Your task to perform on an android device: clear history in the chrome app Image 0: 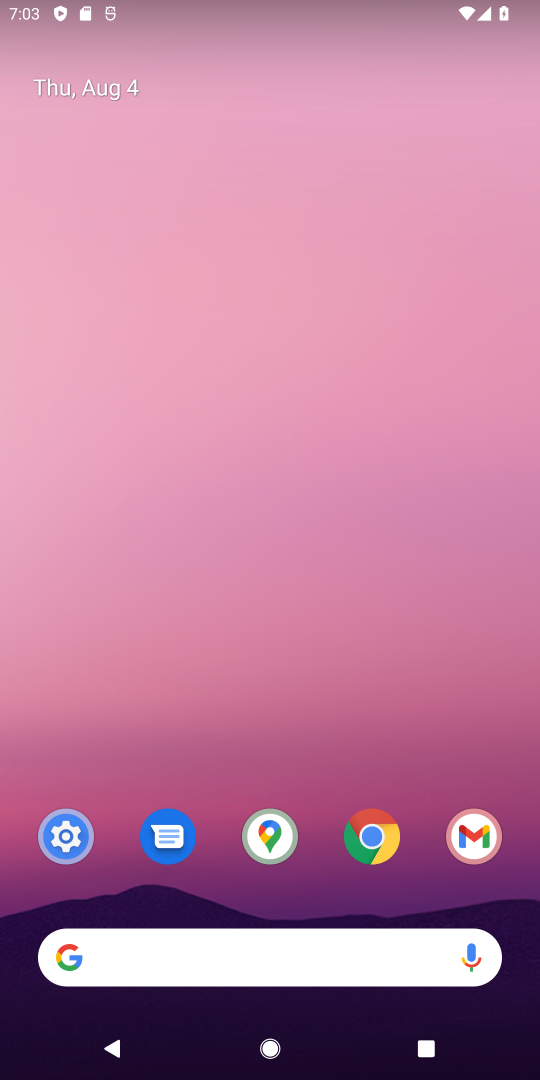
Step 0: click (355, 840)
Your task to perform on an android device: clear history in the chrome app Image 1: 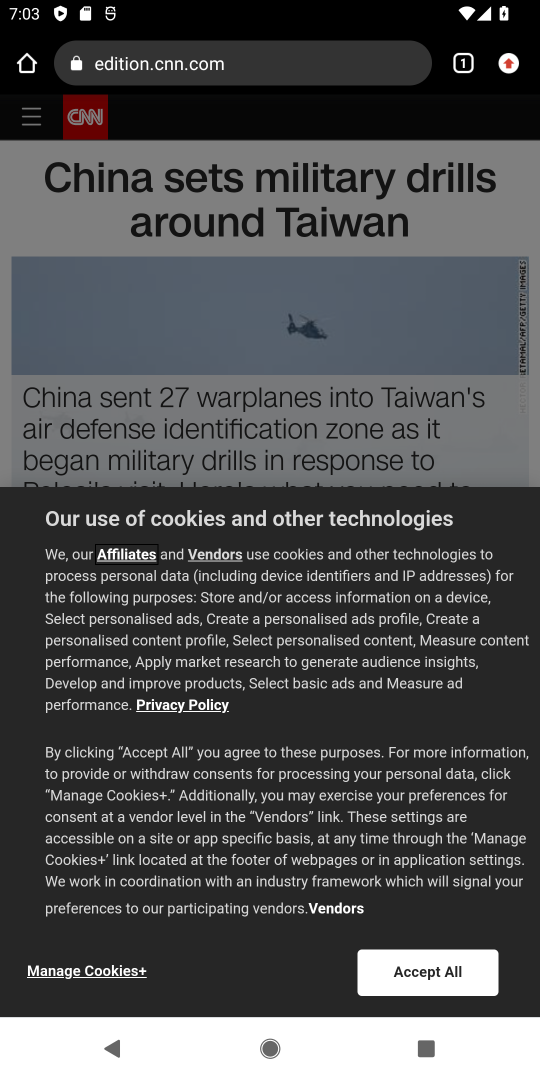
Step 1: drag from (512, 65) to (340, 304)
Your task to perform on an android device: clear history in the chrome app Image 2: 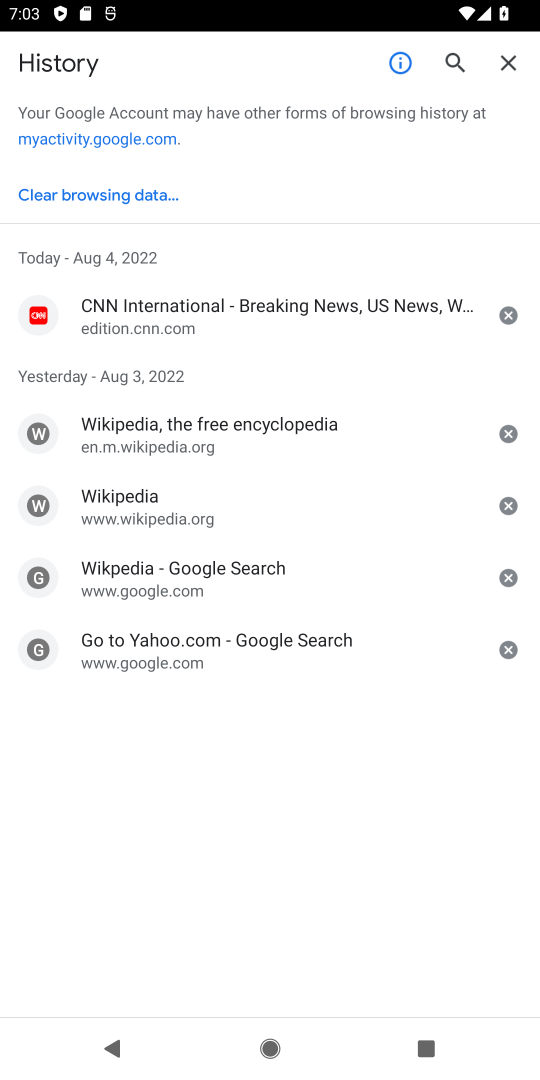
Step 2: click (113, 196)
Your task to perform on an android device: clear history in the chrome app Image 3: 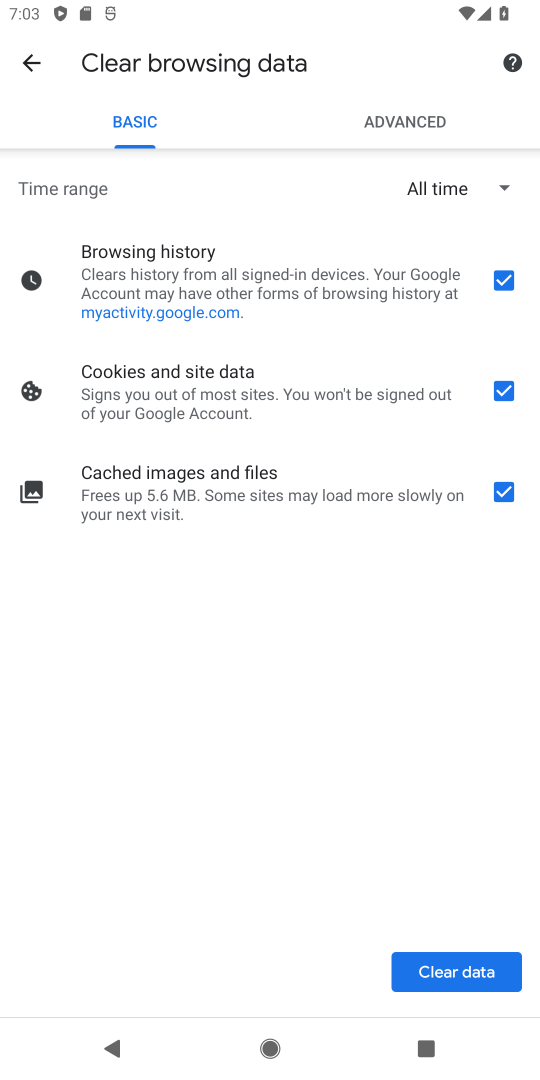
Step 3: click (494, 956)
Your task to perform on an android device: clear history in the chrome app Image 4: 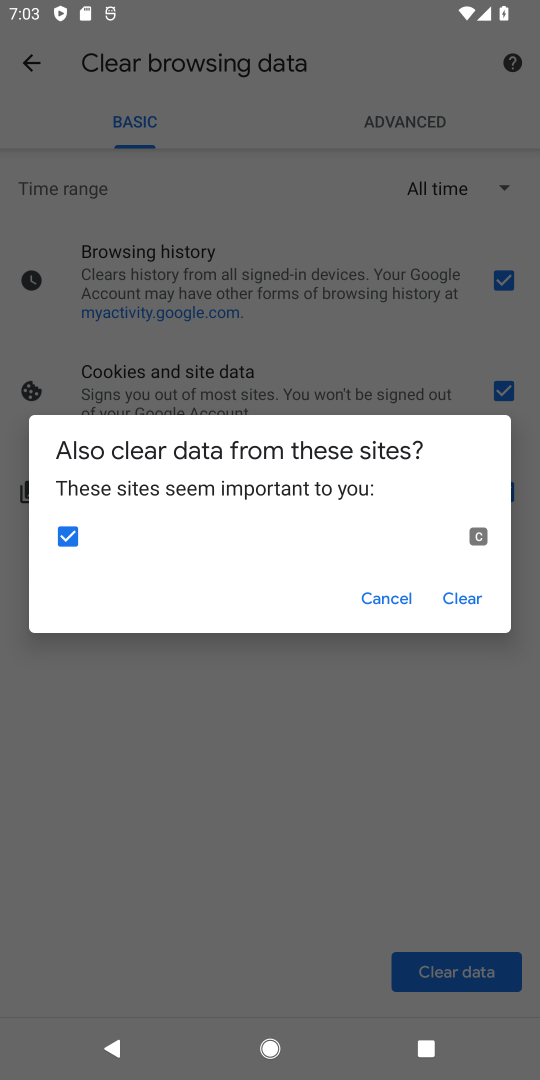
Step 4: click (466, 614)
Your task to perform on an android device: clear history in the chrome app Image 5: 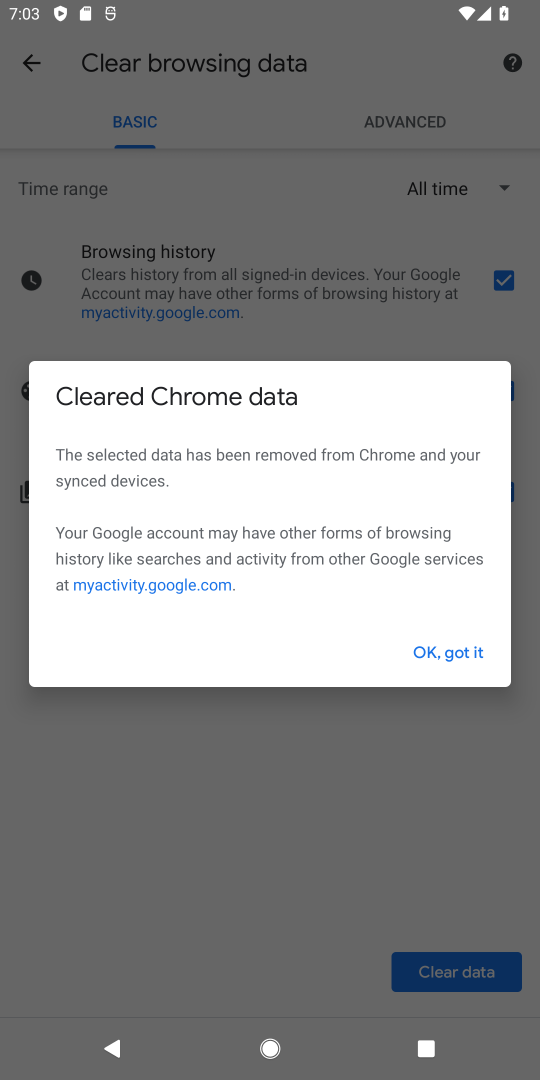
Step 5: click (463, 660)
Your task to perform on an android device: clear history in the chrome app Image 6: 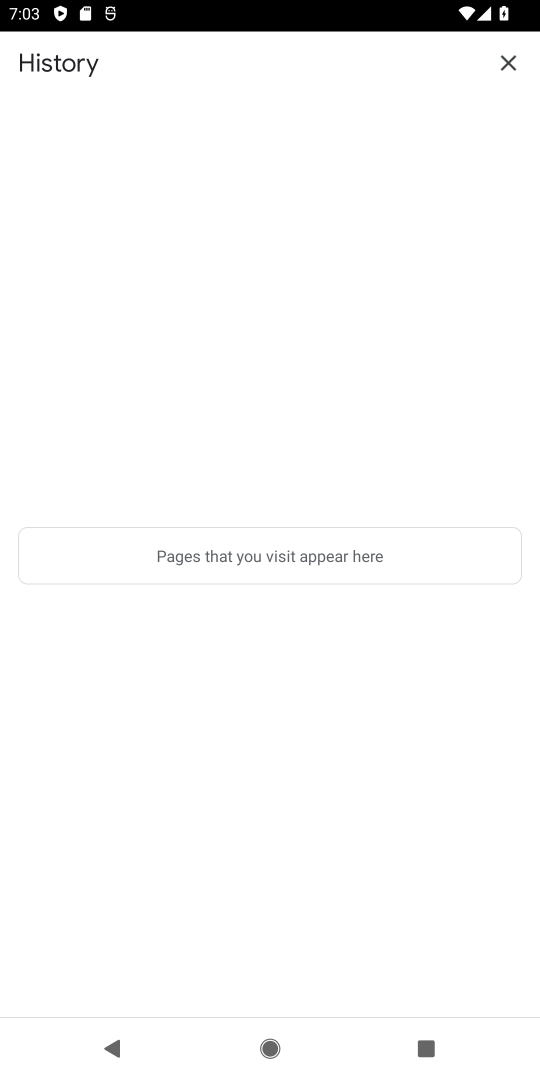
Step 6: task complete